Your task to perform on an android device: set the timer Image 0: 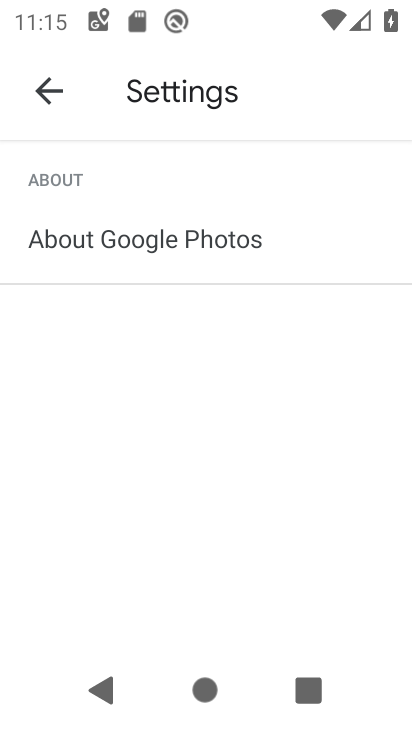
Step 0: press home button
Your task to perform on an android device: set the timer Image 1: 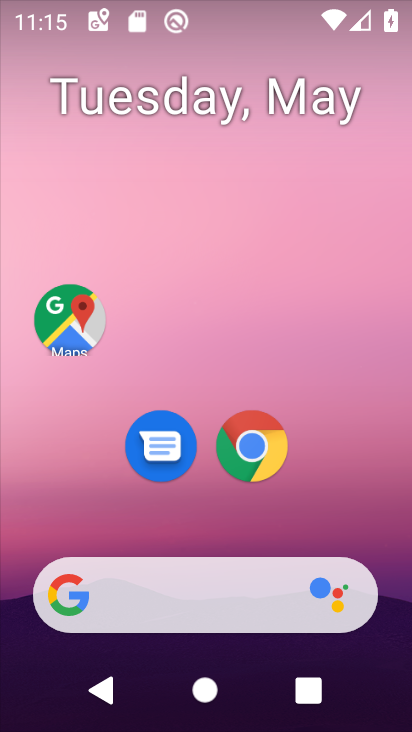
Step 1: drag from (323, 523) to (279, 58)
Your task to perform on an android device: set the timer Image 2: 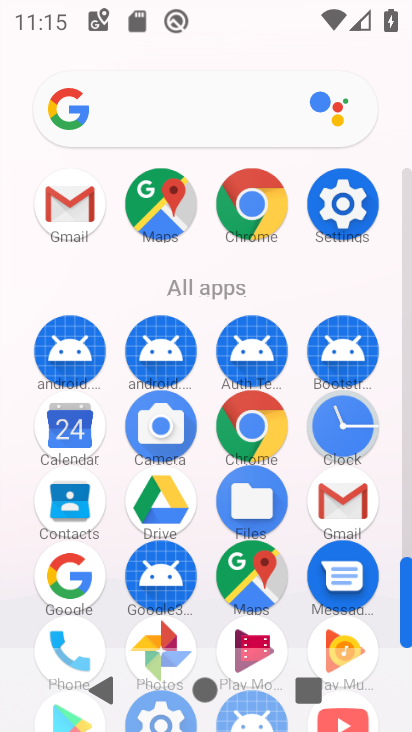
Step 2: click (342, 425)
Your task to perform on an android device: set the timer Image 3: 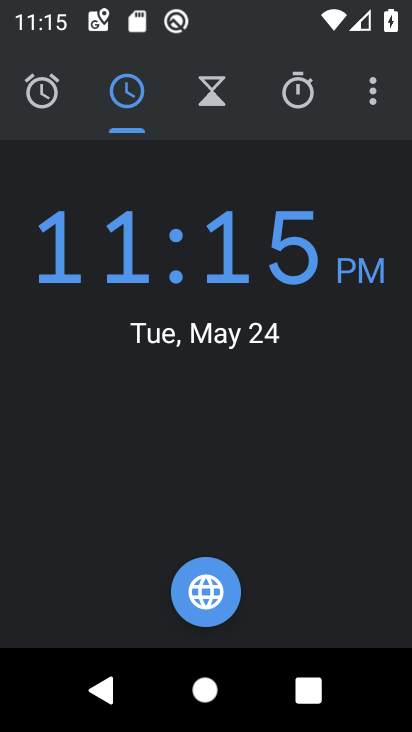
Step 3: click (213, 91)
Your task to perform on an android device: set the timer Image 4: 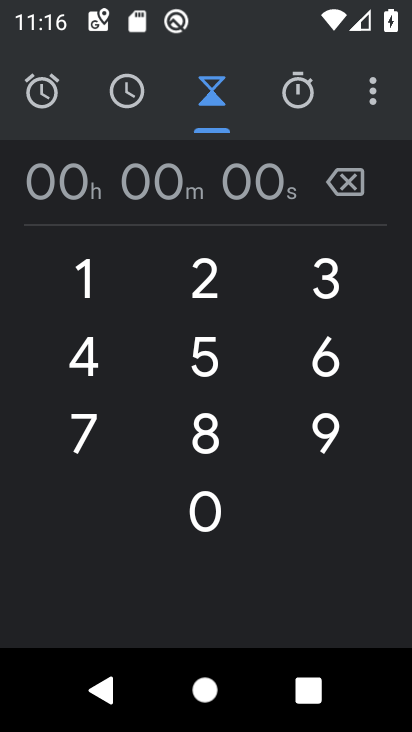
Step 4: type "1234"
Your task to perform on an android device: set the timer Image 5: 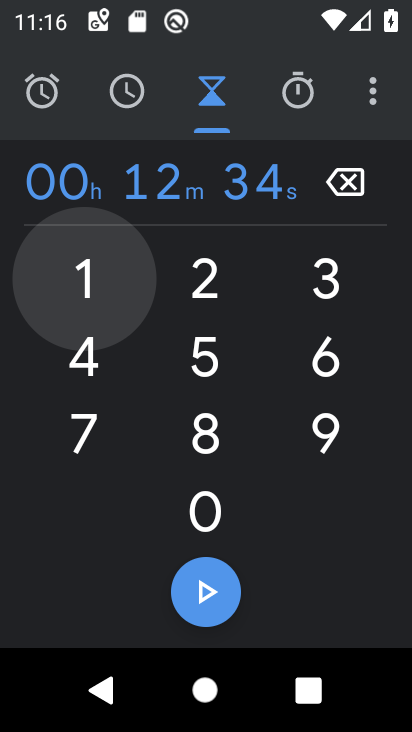
Step 5: click (213, 588)
Your task to perform on an android device: set the timer Image 6: 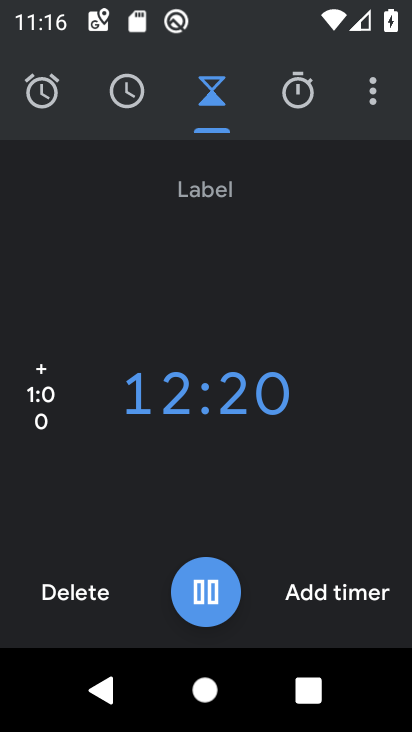
Step 6: click (212, 593)
Your task to perform on an android device: set the timer Image 7: 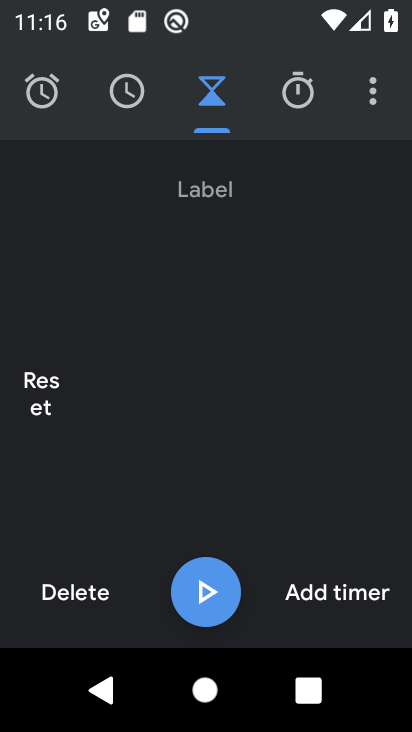
Step 7: task complete